Your task to perform on an android device: Go to Yahoo.com Image 0: 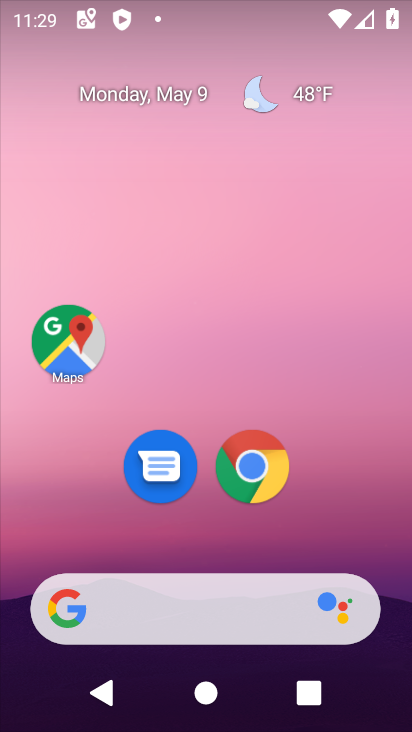
Step 0: click (255, 461)
Your task to perform on an android device: Go to Yahoo.com Image 1: 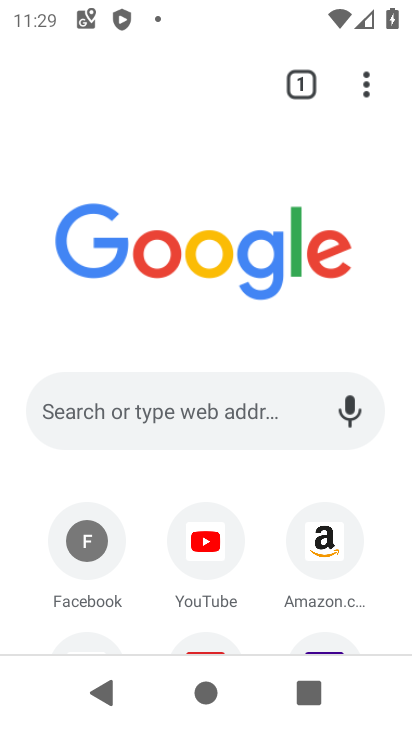
Step 1: click (138, 402)
Your task to perform on an android device: Go to Yahoo.com Image 2: 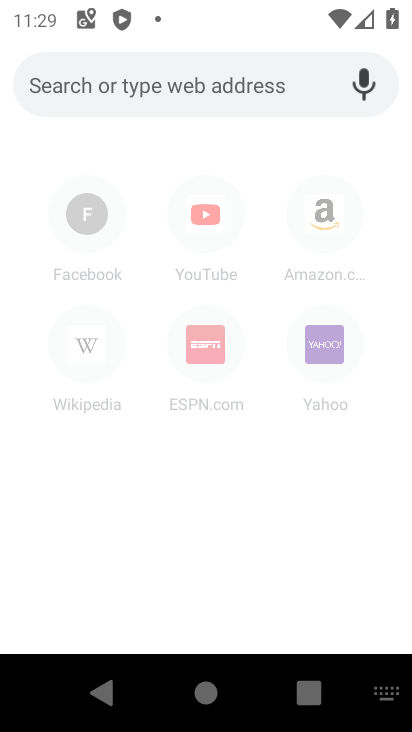
Step 2: type "yahoo.com"
Your task to perform on an android device: Go to Yahoo.com Image 3: 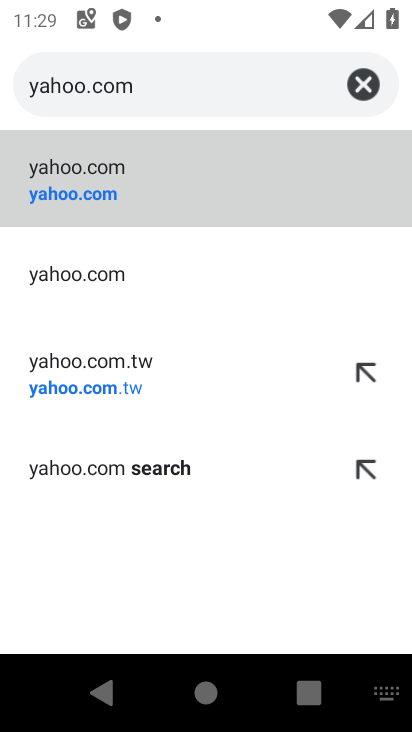
Step 3: click (51, 176)
Your task to perform on an android device: Go to Yahoo.com Image 4: 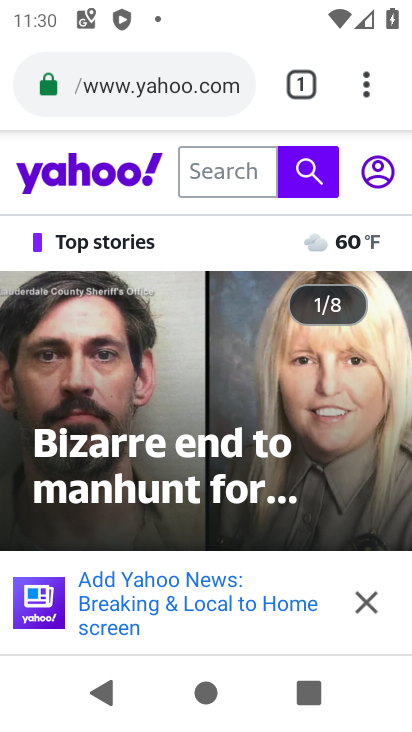
Step 4: task complete